Your task to perform on an android device: Show me recent news Image 0: 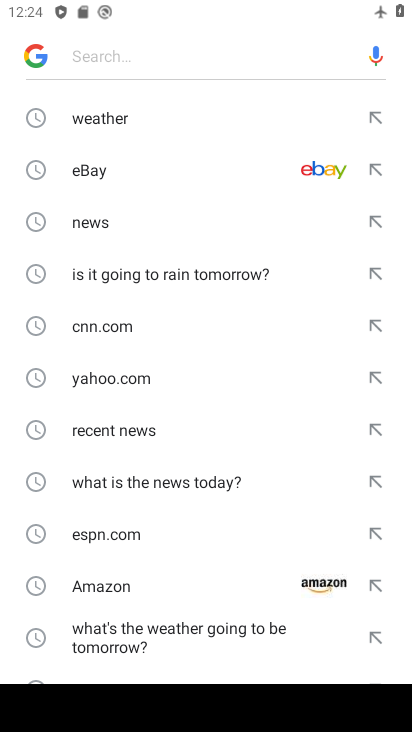
Step 0: press home button
Your task to perform on an android device: Show me recent news Image 1: 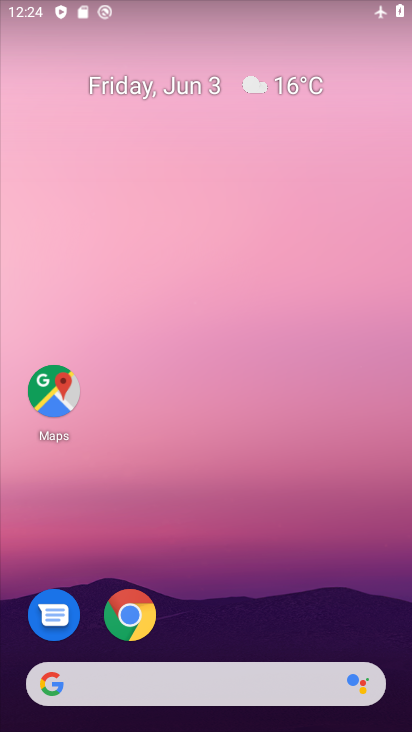
Step 1: click (135, 603)
Your task to perform on an android device: Show me recent news Image 2: 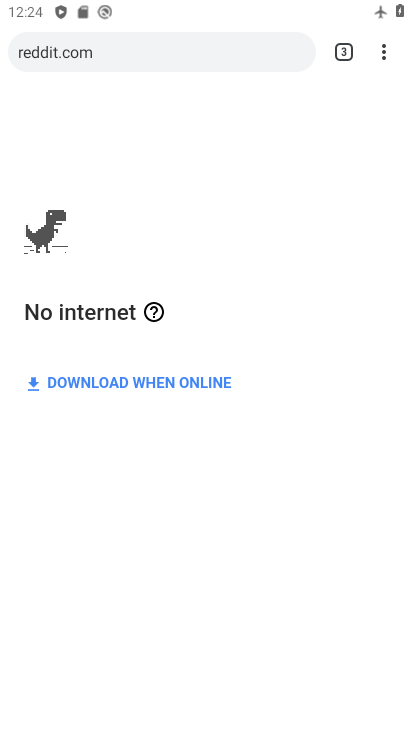
Step 2: click (371, 48)
Your task to perform on an android device: Show me recent news Image 3: 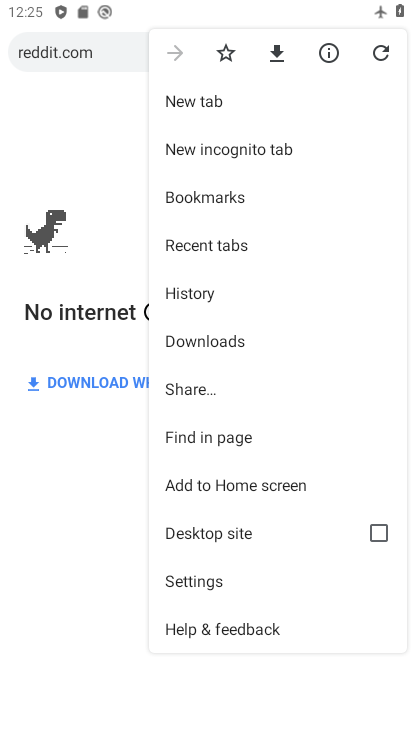
Step 3: click (237, 100)
Your task to perform on an android device: Show me recent news Image 4: 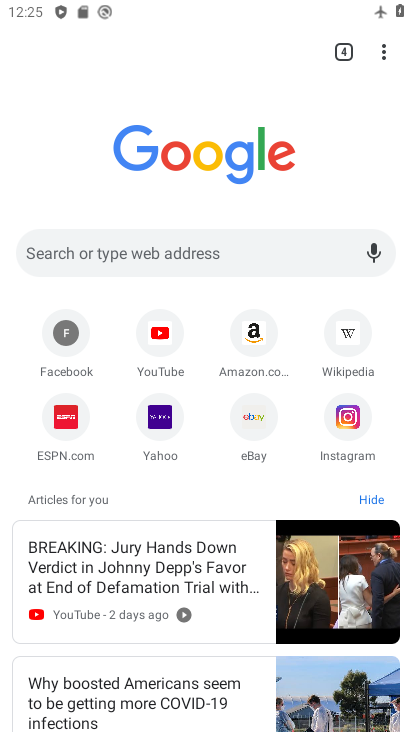
Step 4: click (200, 258)
Your task to perform on an android device: Show me recent news Image 5: 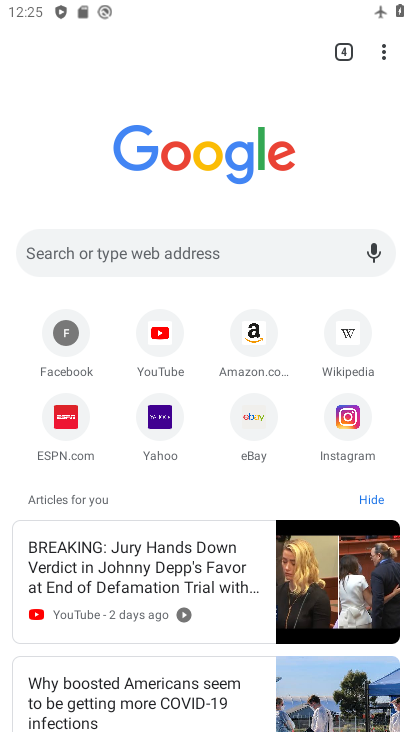
Step 5: click (200, 248)
Your task to perform on an android device: Show me recent news Image 6: 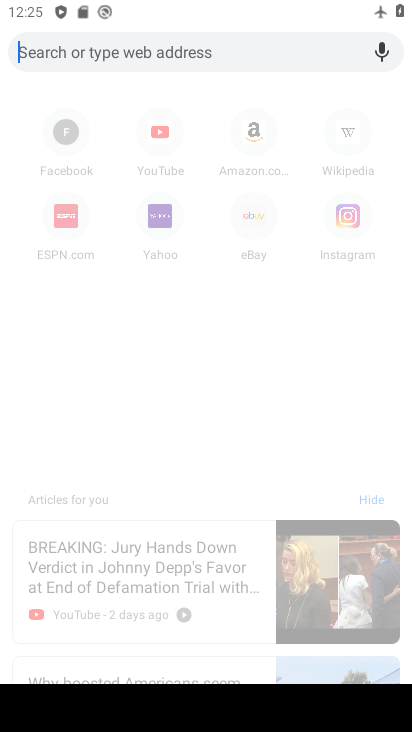
Step 6: type "Show me recent news"
Your task to perform on an android device: Show me recent news Image 7: 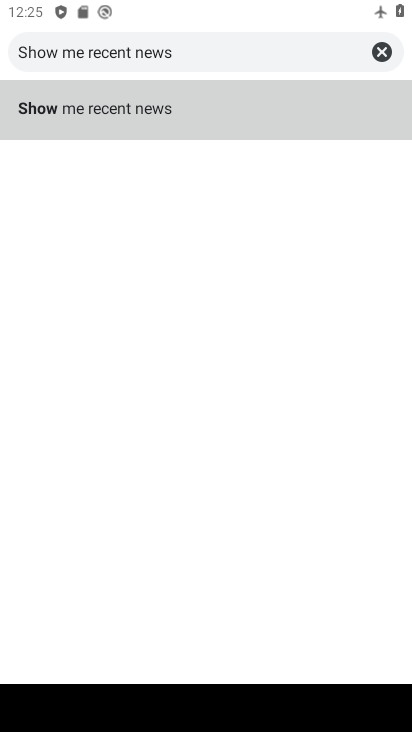
Step 7: click (227, 103)
Your task to perform on an android device: Show me recent news Image 8: 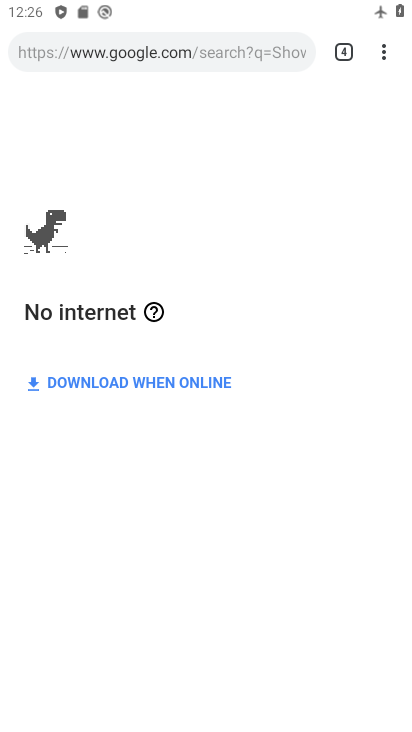
Step 8: task complete